Your task to perform on an android device: Go to Wikipedia Image 0: 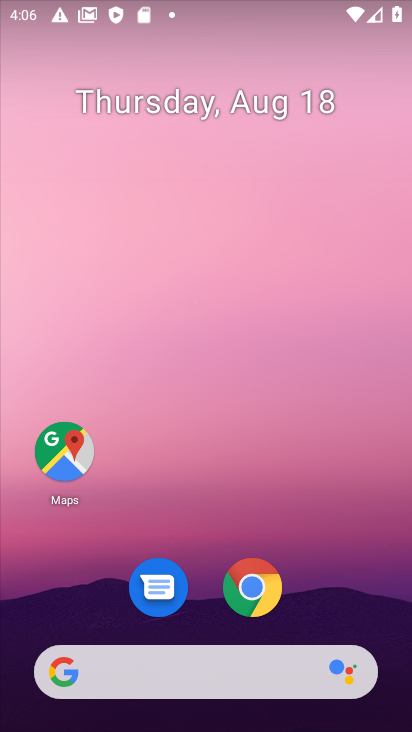
Step 0: drag from (254, 453) to (332, 1)
Your task to perform on an android device: Go to Wikipedia Image 1: 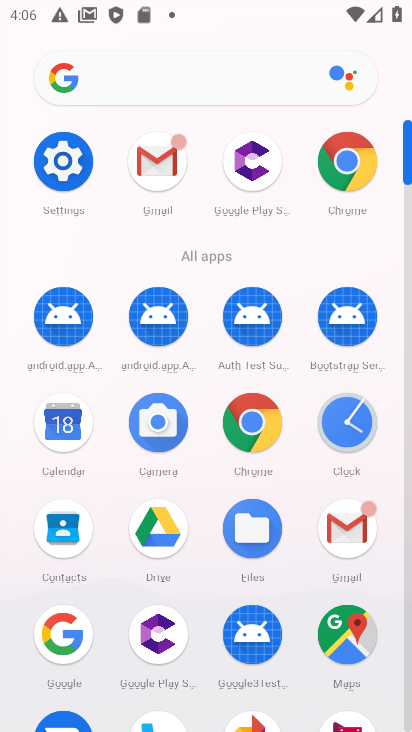
Step 1: drag from (210, 464) to (249, 78)
Your task to perform on an android device: Go to Wikipedia Image 2: 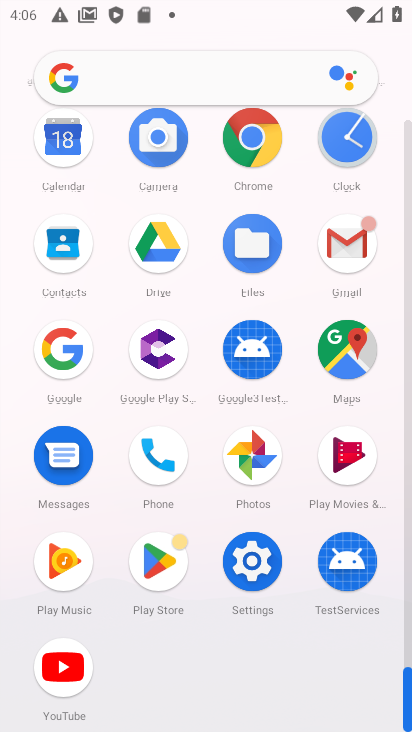
Step 2: click (260, 138)
Your task to perform on an android device: Go to Wikipedia Image 3: 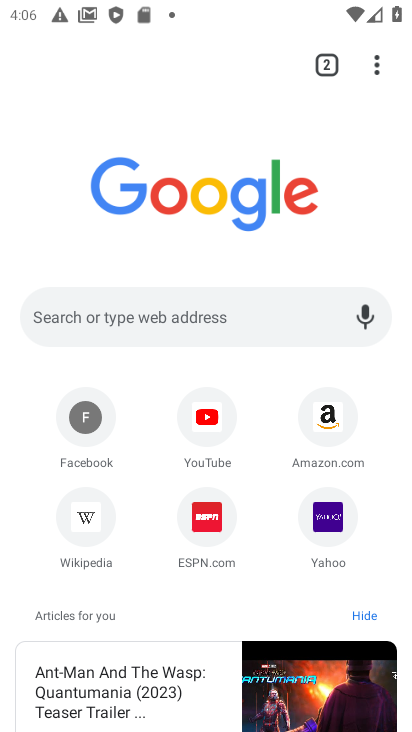
Step 3: click (73, 511)
Your task to perform on an android device: Go to Wikipedia Image 4: 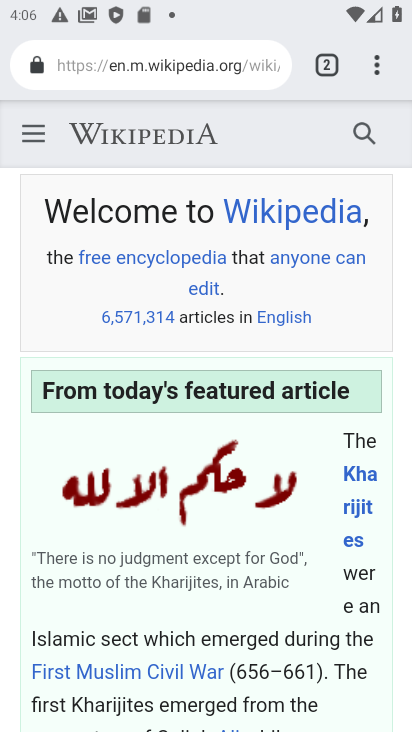
Step 4: task complete